Your task to perform on an android device: turn off smart reply in the gmail app Image 0: 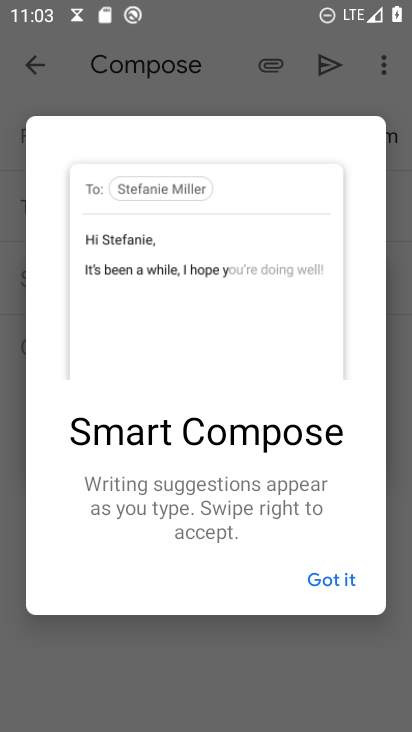
Step 0: press home button
Your task to perform on an android device: turn off smart reply in the gmail app Image 1: 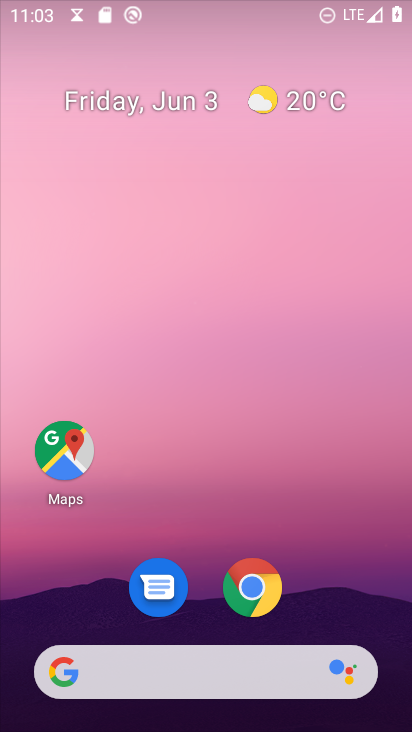
Step 1: drag from (384, 561) to (209, 1)
Your task to perform on an android device: turn off smart reply in the gmail app Image 2: 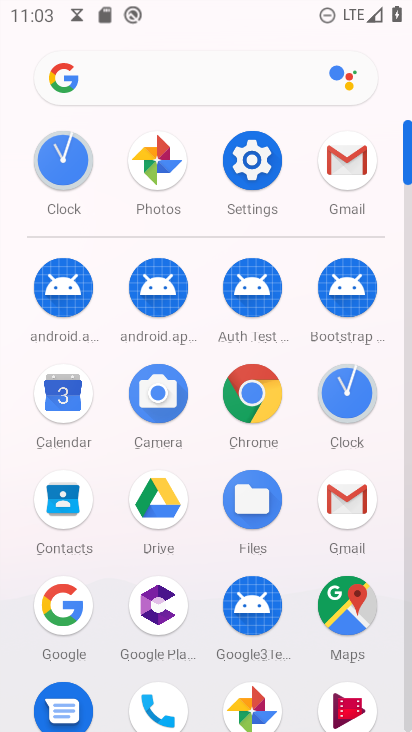
Step 2: click (346, 521)
Your task to perform on an android device: turn off smart reply in the gmail app Image 3: 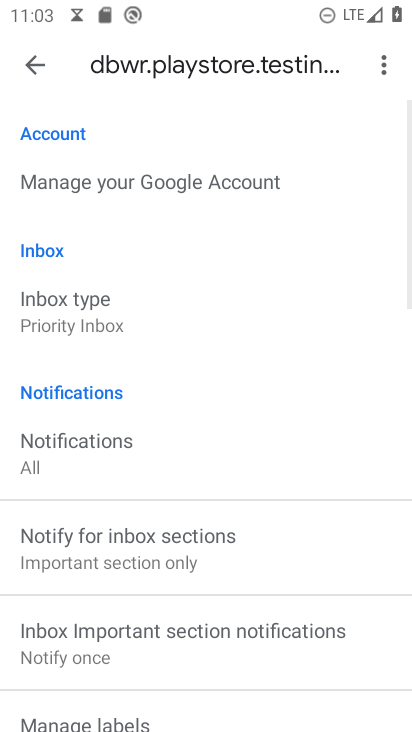
Step 3: drag from (248, 570) to (230, 4)
Your task to perform on an android device: turn off smart reply in the gmail app Image 4: 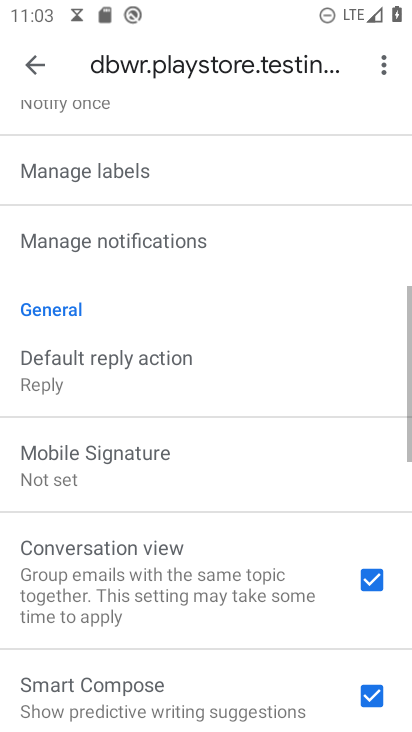
Step 4: drag from (202, 623) to (283, 108)
Your task to perform on an android device: turn off smart reply in the gmail app Image 5: 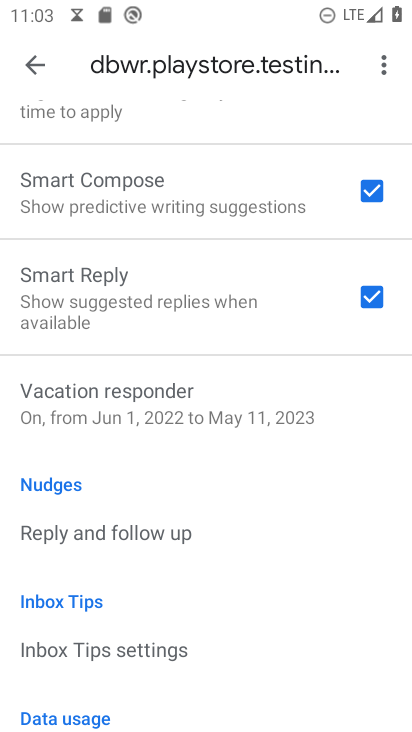
Step 5: click (370, 291)
Your task to perform on an android device: turn off smart reply in the gmail app Image 6: 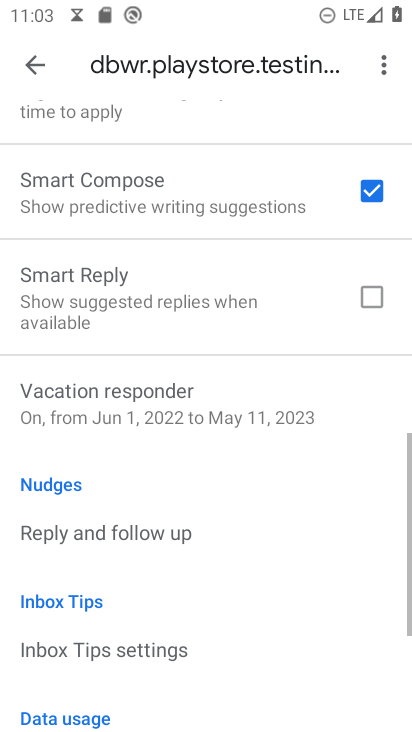
Step 6: task complete